Your task to perform on an android device: Open Google Maps Image 0: 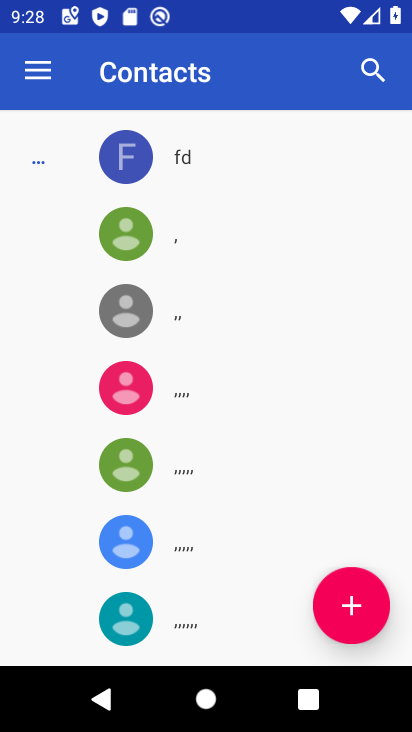
Step 0: press home button
Your task to perform on an android device: Open Google Maps Image 1: 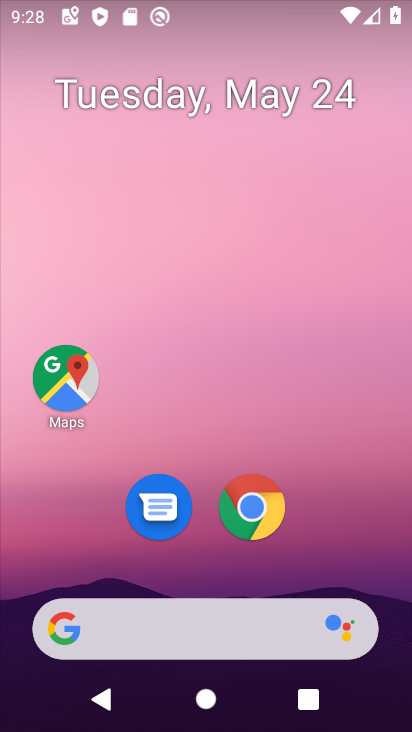
Step 1: click (61, 404)
Your task to perform on an android device: Open Google Maps Image 2: 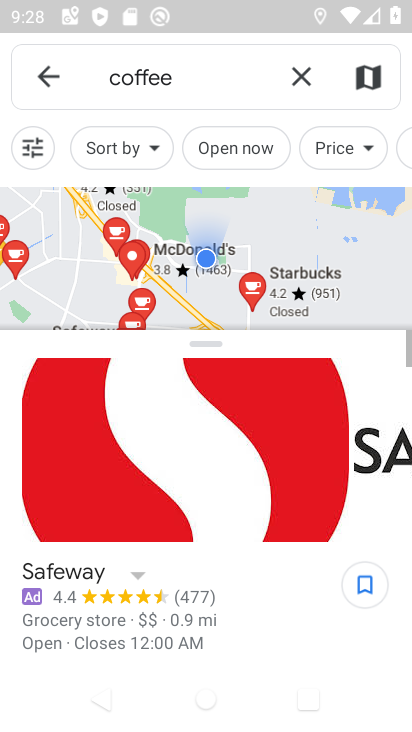
Step 2: task complete